Your task to perform on an android device: move a message to another label in the gmail app Image 0: 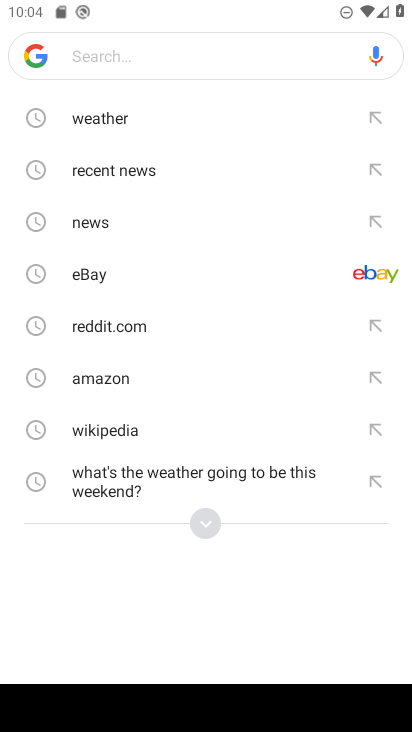
Step 0: press home button
Your task to perform on an android device: move a message to another label in the gmail app Image 1: 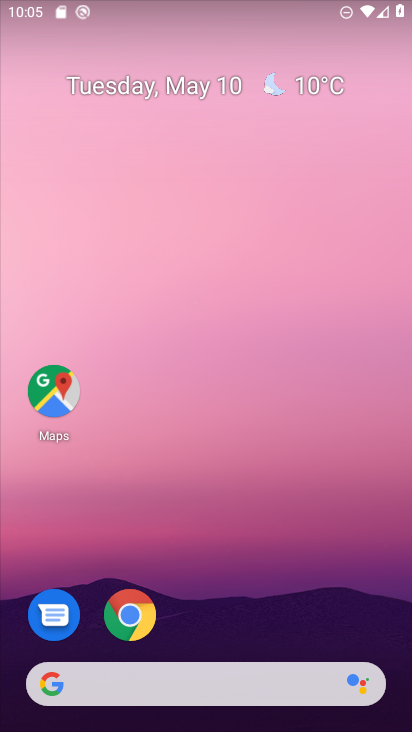
Step 1: drag from (392, 651) to (307, 11)
Your task to perform on an android device: move a message to another label in the gmail app Image 2: 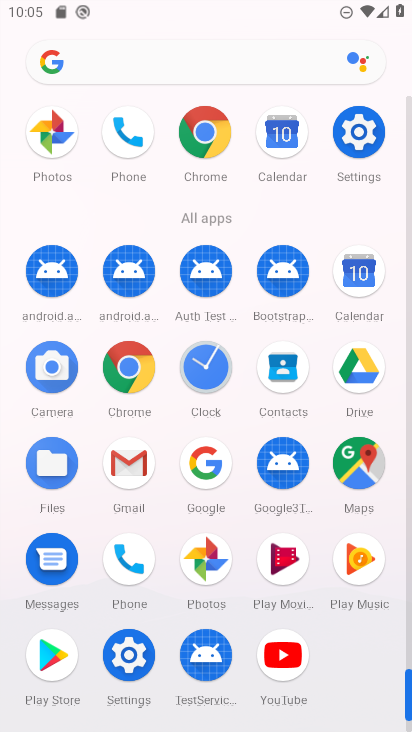
Step 2: click (127, 461)
Your task to perform on an android device: move a message to another label in the gmail app Image 3: 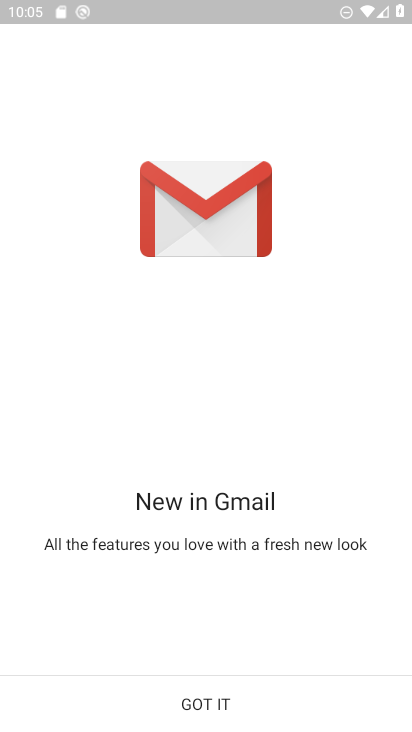
Step 3: click (203, 693)
Your task to perform on an android device: move a message to another label in the gmail app Image 4: 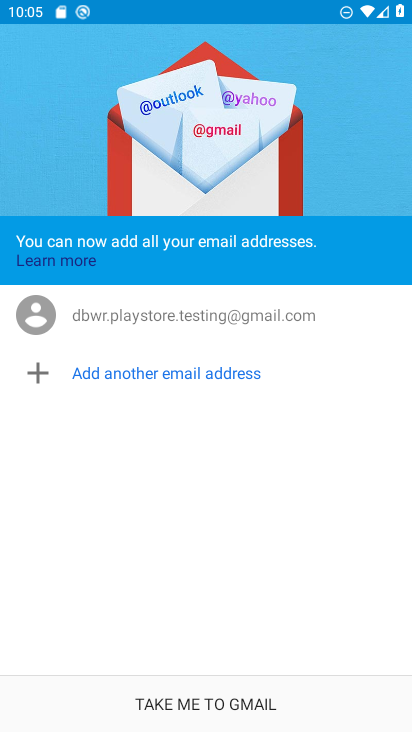
Step 4: click (187, 704)
Your task to perform on an android device: move a message to another label in the gmail app Image 5: 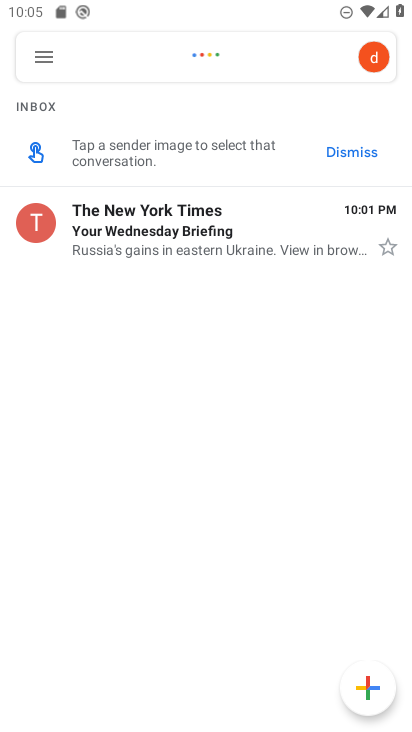
Step 5: click (40, 52)
Your task to perform on an android device: move a message to another label in the gmail app Image 6: 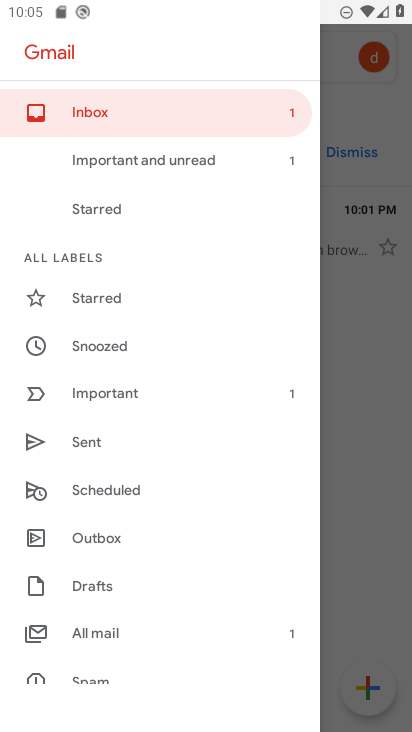
Step 6: drag from (221, 667) to (224, 570)
Your task to perform on an android device: move a message to another label in the gmail app Image 7: 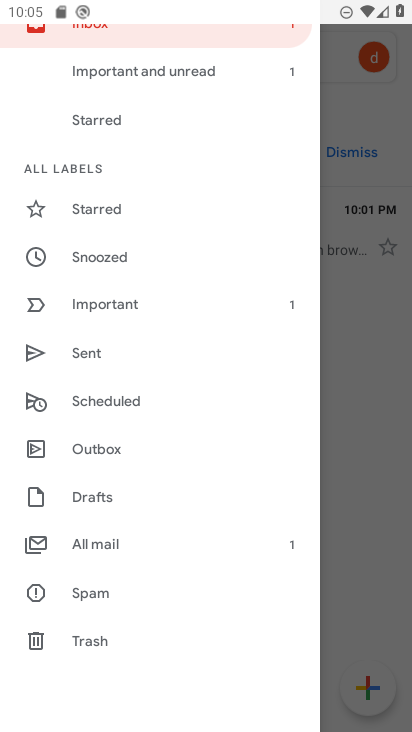
Step 7: click (88, 540)
Your task to perform on an android device: move a message to another label in the gmail app Image 8: 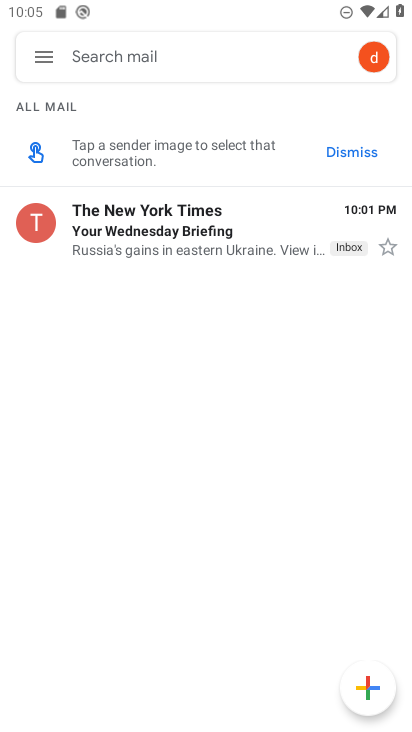
Step 8: click (119, 230)
Your task to perform on an android device: move a message to another label in the gmail app Image 9: 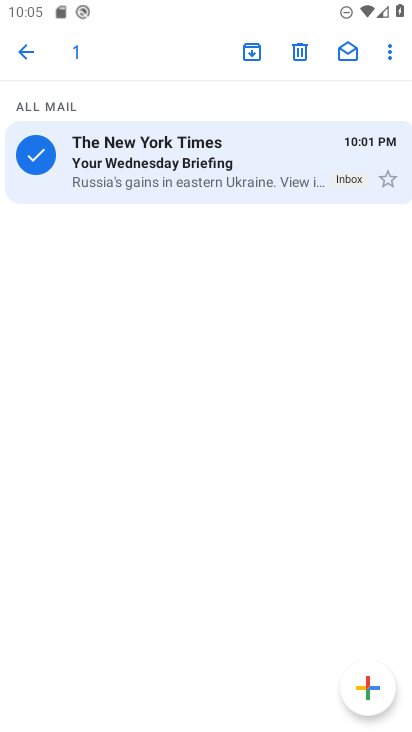
Step 9: click (387, 55)
Your task to perform on an android device: move a message to another label in the gmail app Image 10: 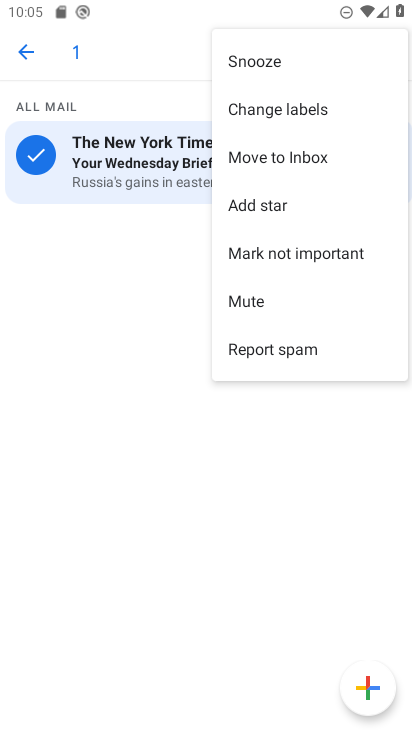
Step 10: click (259, 106)
Your task to perform on an android device: move a message to another label in the gmail app Image 11: 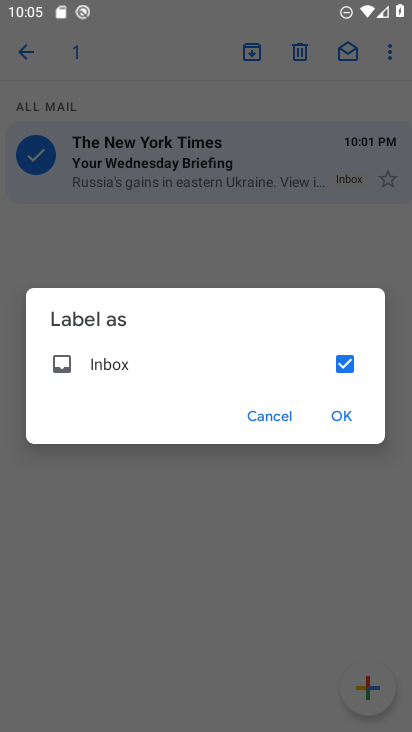
Step 11: click (340, 409)
Your task to perform on an android device: move a message to another label in the gmail app Image 12: 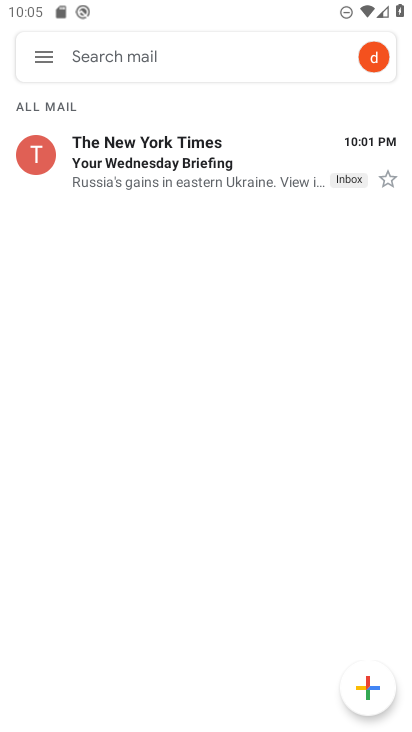
Step 12: task complete